Your task to perform on an android device: Open Youtube and go to "Your channel" Image 0: 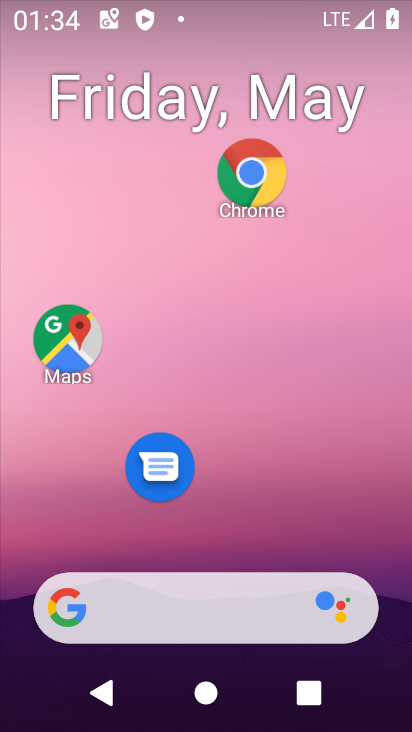
Step 0: drag from (238, 645) to (341, 193)
Your task to perform on an android device: Open Youtube and go to "Your channel" Image 1: 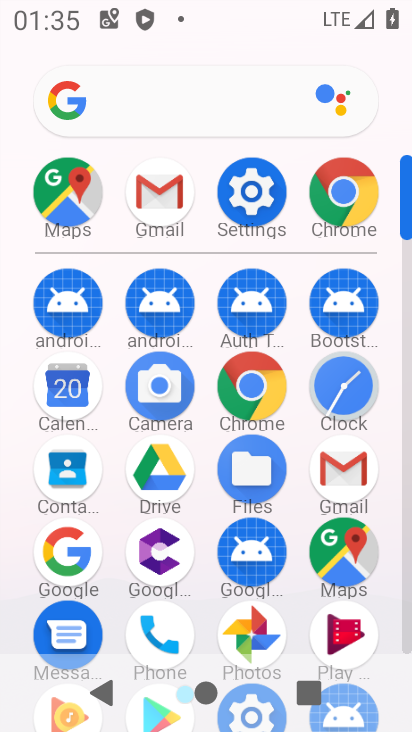
Step 1: drag from (294, 438) to (261, 247)
Your task to perform on an android device: Open Youtube and go to "Your channel" Image 2: 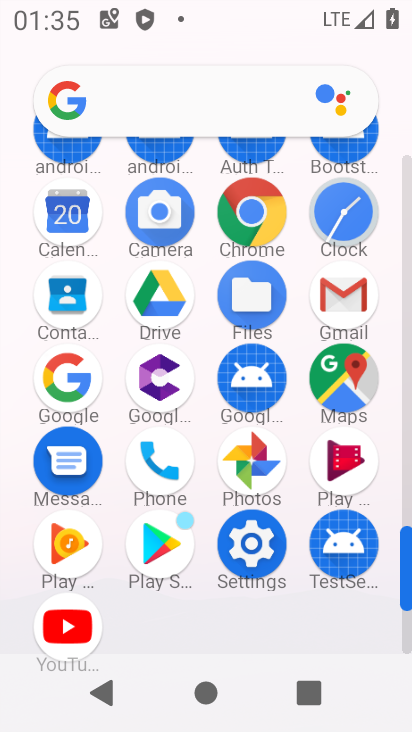
Step 2: click (72, 626)
Your task to perform on an android device: Open Youtube and go to "Your channel" Image 3: 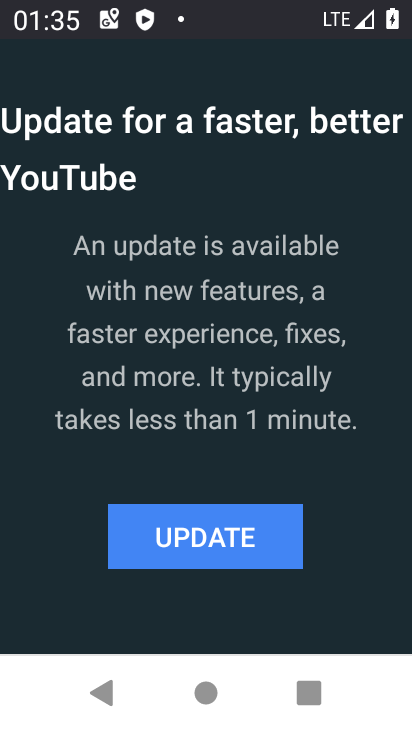
Step 3: click (166, 545)
Your task to perform on an android device: Open Youtube and go to "Your channel" Image 4: 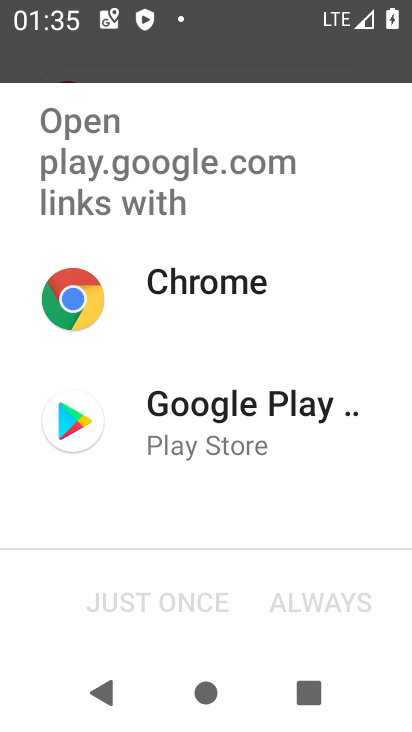
Step 4: click (182, 457)
Your task to perform on an android device: Open Youtube and go to "Your channel" Image 5: 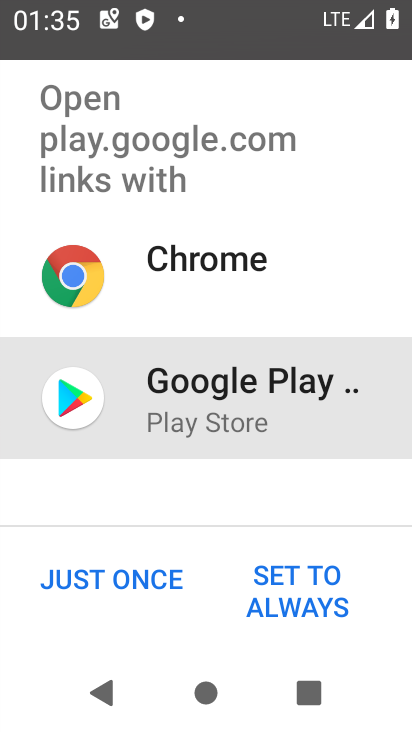
Step 5: click (153, 590)
Your task to perform on an android device: Open Youtube and go to "Your channel" Image 6: 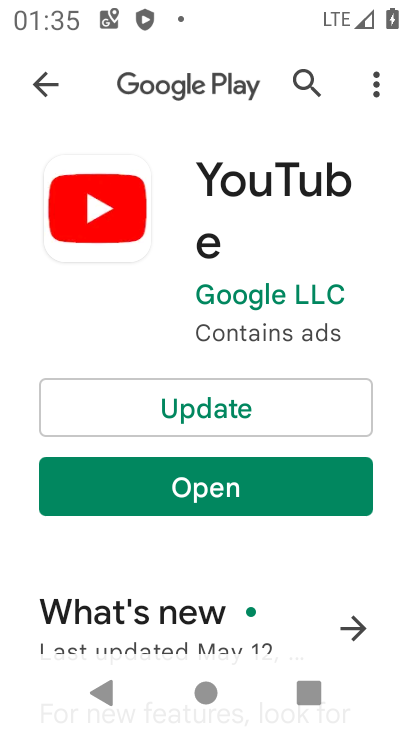
Step 6: click (194, 408)
Your task to perform on an android device: Open Youtube and go to "Your channel" Image 7: 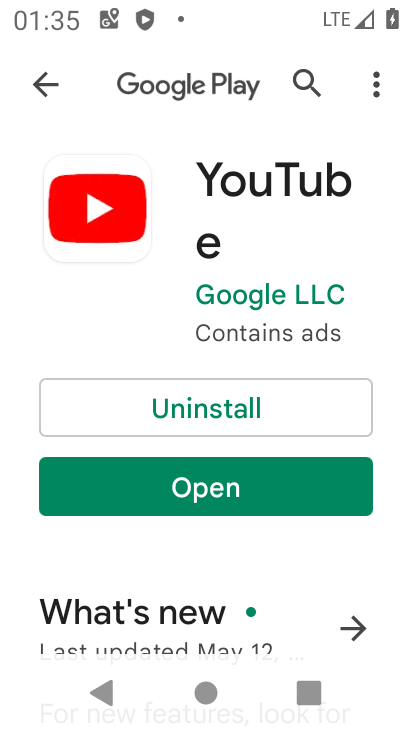
Step 7: click (192, 483)
Your task to perform on an android device: Open Youtube and go to "Your channel" Image 8: 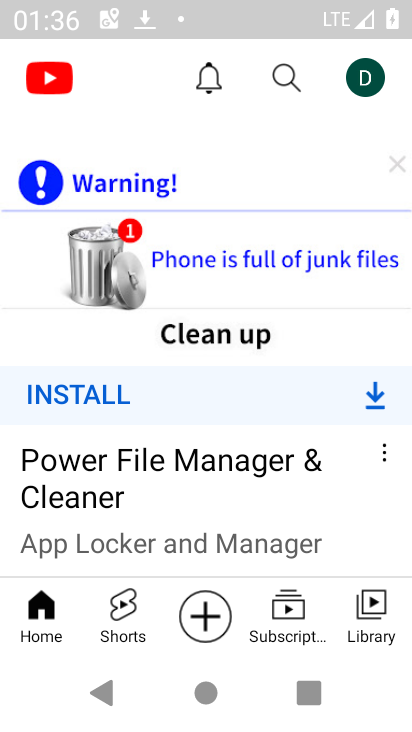
Step 8: click (372, 86)
Your task to perform on an android device: Open Youtube and go to "Your channel" Image 9: 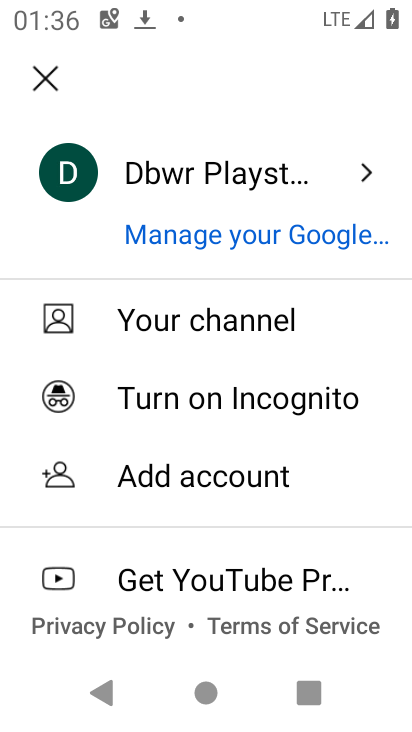
Step 9: click (203, 332)
Your task to perform on an android device: Open Youtube and go to "Your channel" Image 10: 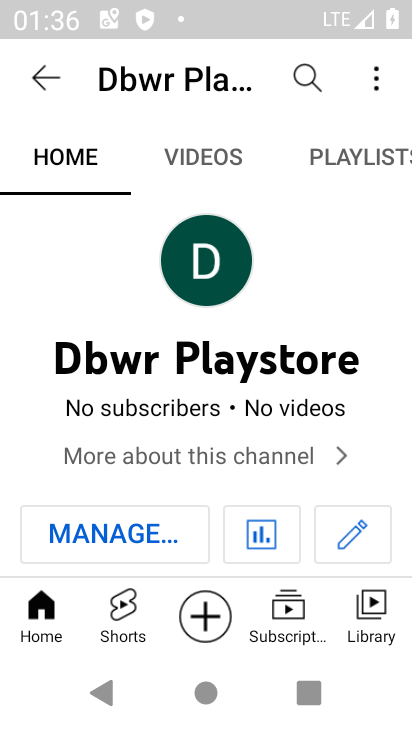
Step 10: task complete